Your task to perform on an android device: check android version Image 0: 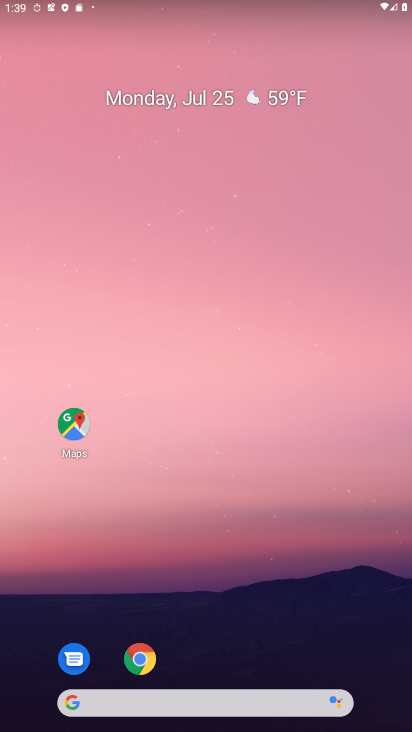
Step 0: drag from (263, 631) to (209, 27)
Your task to perform on an android device: check android version Image 1: 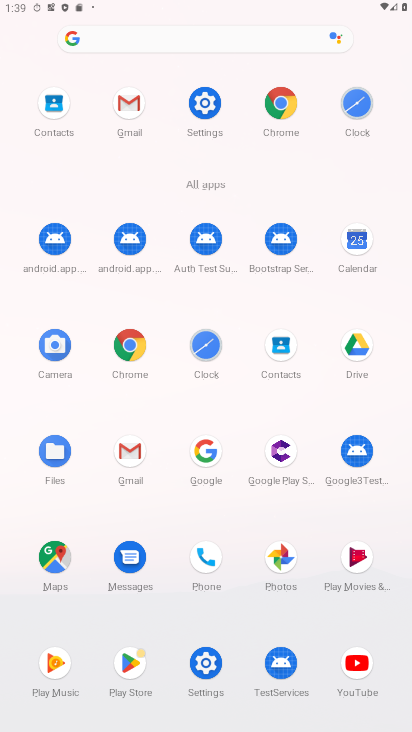
Step 1: click (204, 104)
Your task to perform on an android device: check android version Image 2: 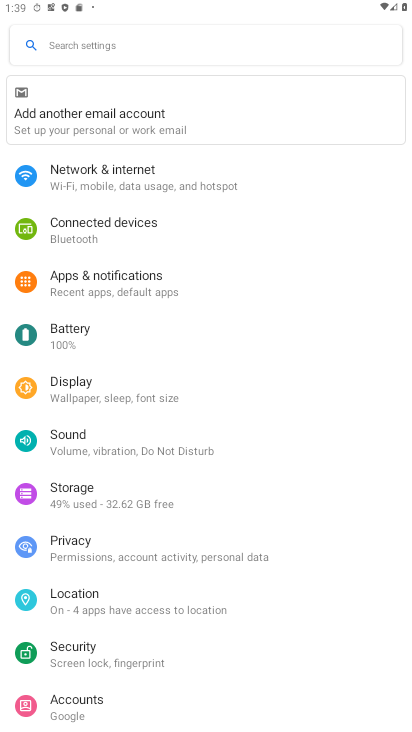
Step 2: drag from (178, 576) to (96, 6)
Your task to perform on an android device: check android version Image 3: 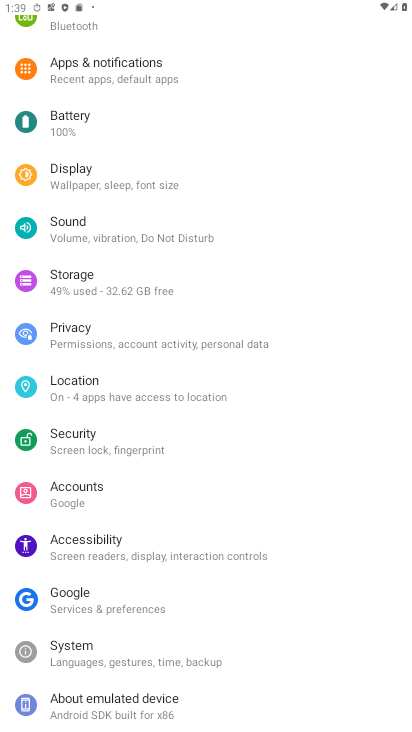
Step 3: click (119, 710)
Your task to perform on an android device: check android version Image 4: 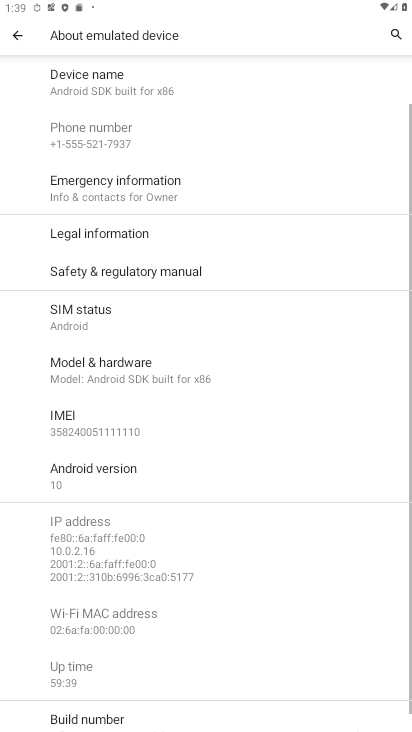
Step 4: click (80, 473)
Your task to perform on an android device: check android version Image 5: 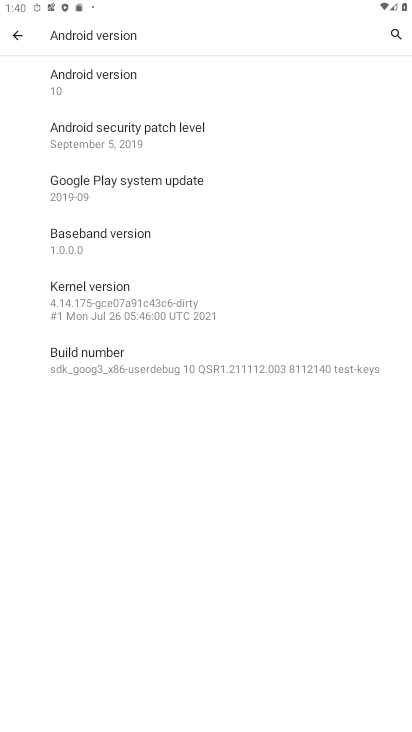
Step 5: task complete